Your task to perform on an android device: Open battery settings Image 0: 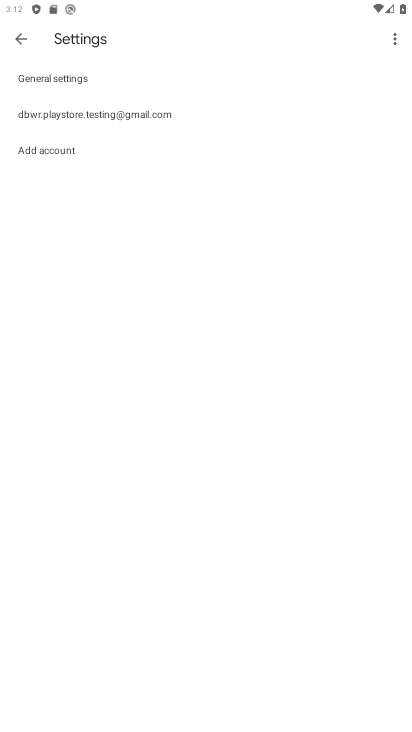
Step 0: press home button
Your task to perform on an android device: Open battery settings Image 1: 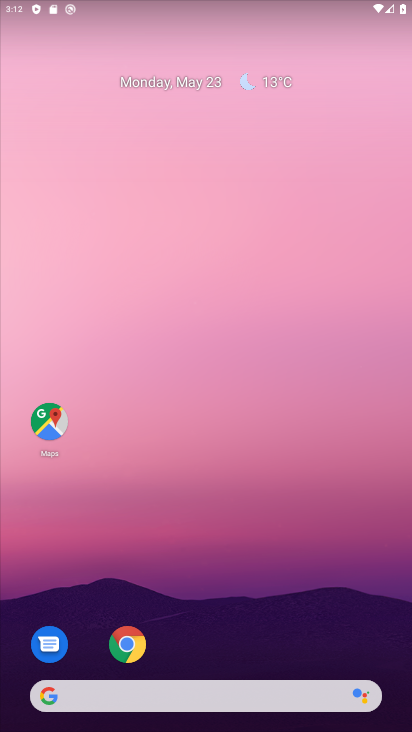
Step 1: drag from (274, 586) to (263, 206)
Your task to perform on an android device: Open battery settings Image 2: 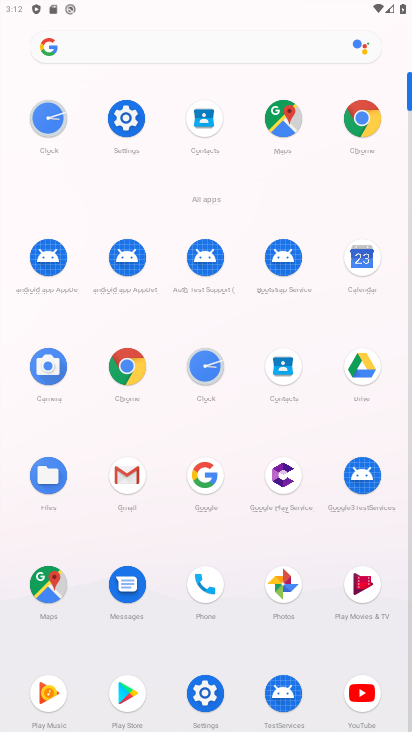
Step 2: click (131, 112)
Your task to perform on an android device: Open battery settings Image 3: 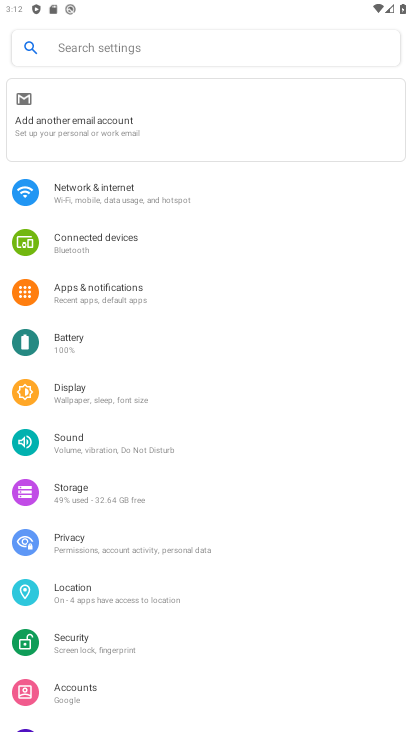
Step 3: drag from (184, 559) to (228, 321)
Your task to perform on an android device: Open battery settings Image 4: 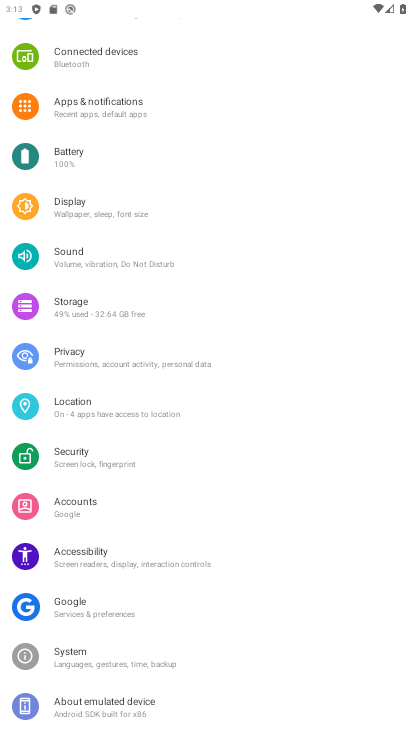
Step 4: drag from (133, 119) to (157, 260)
Your task to perform on an android device: Open battery settings Image 5: 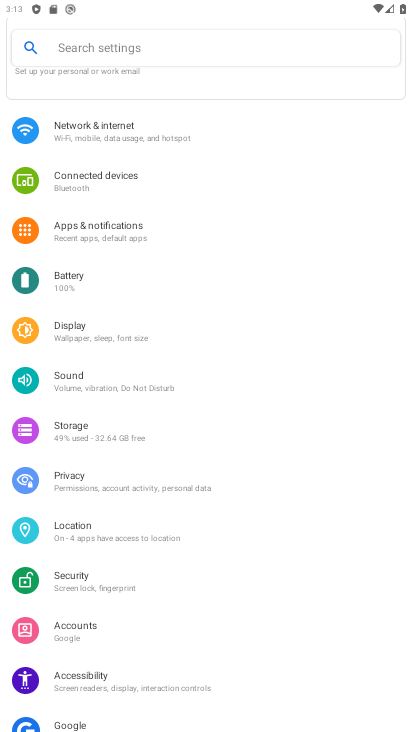
Step 5: click (85, 281)
Your task to perform on an android device: Open battery settings Image 6: 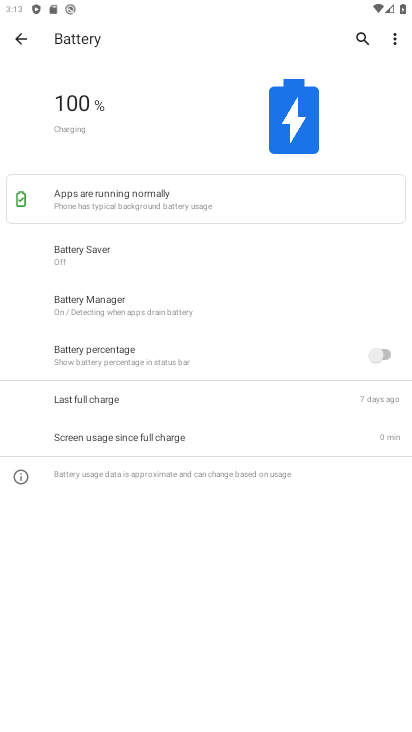
Step 6: task complete